Your task to perform on an android device: turn on improve location accuracy Image 0: 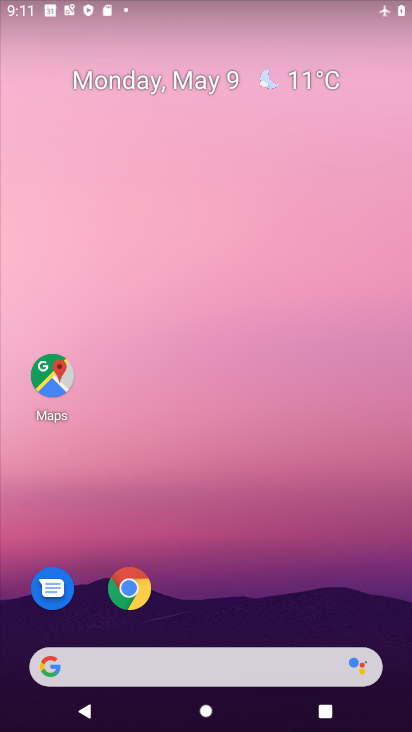
Step 0: drag from (146, 678) to (319, 158)
Your task to perform on an android device: turn on improve location accuracy Image 1: 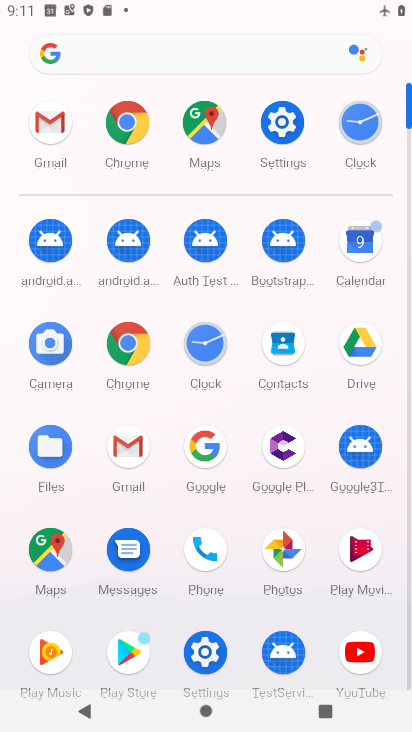
Step 1: click (282, 129)
Your task to perform on an android device: turn on improve location accuracy Image 2: 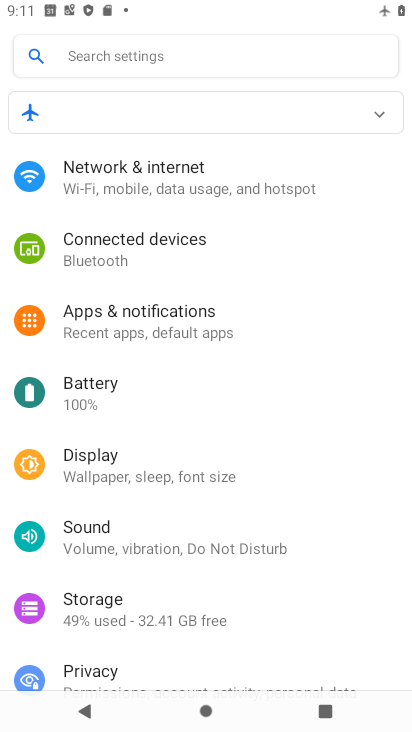
Step 2: drag from (156, 584) to (258, 354)
Your task to perform on an android device: turn on improve location accuracy Image 3: 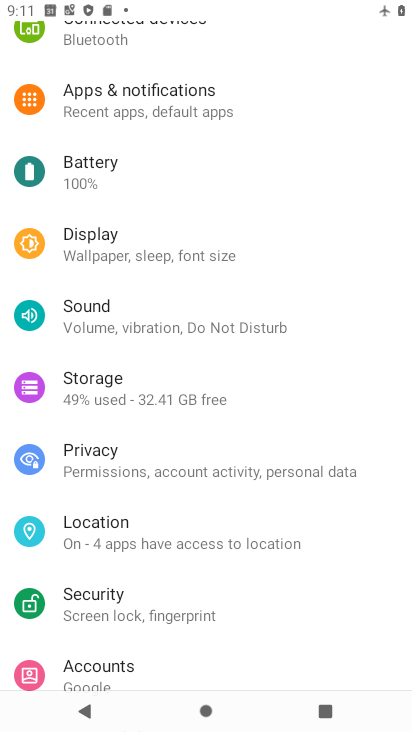
Step 3: click (152, 542)
Your task to perform on an android device: turn on improve location accuracy Image 4: 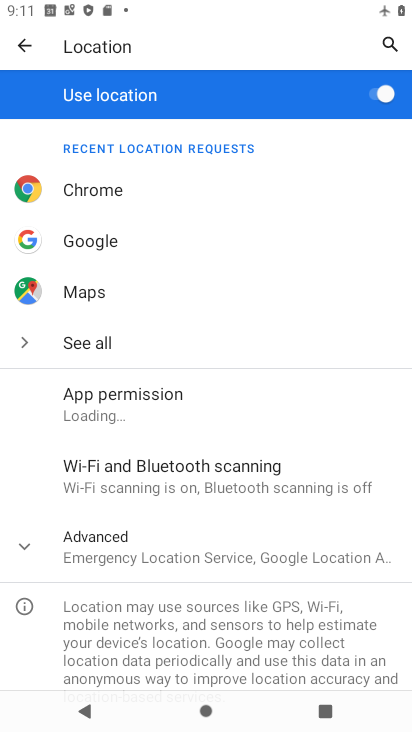
Step 4: click (131, 544)
Your task to perform on an android device: turn on improve location accuracy Image 5: 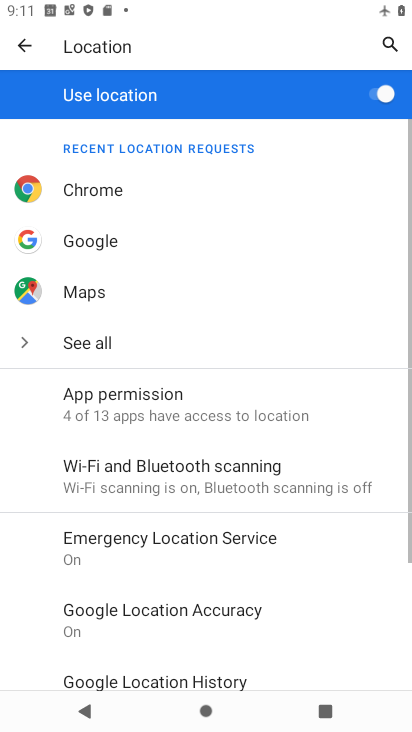
Step 5: drag from (162, 589) to (283, 355)
Your task to perform on an android device: turn on improve location accuracy Image 6: 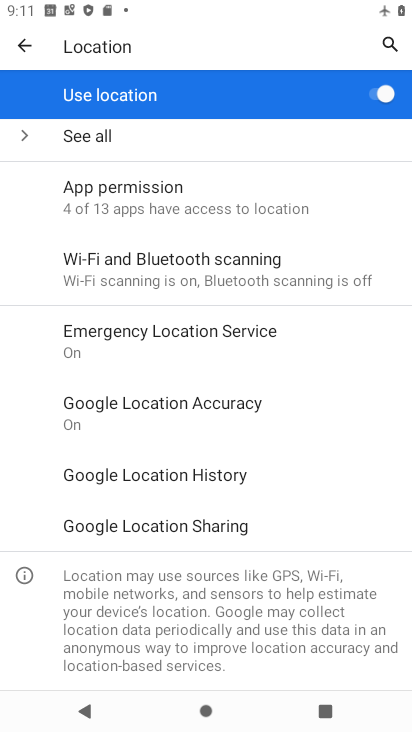
Step 6: click (220, 407)
Your task to perform on an android device: turn on improve location accuracy Image 7: 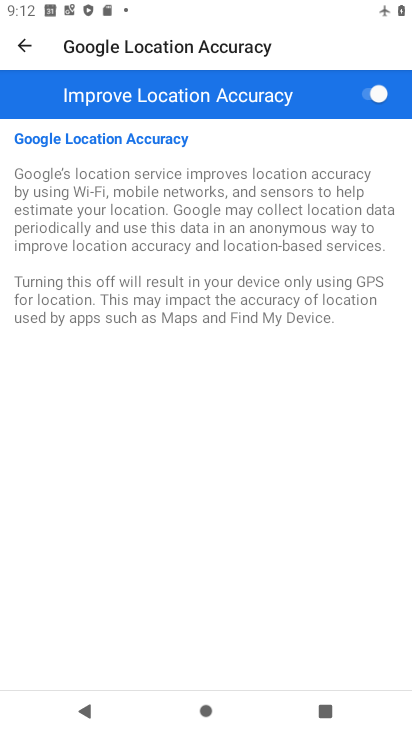
Step 7: task complete